Your task to perform on an android device: turn on the 24-hour format for clock Image 0: 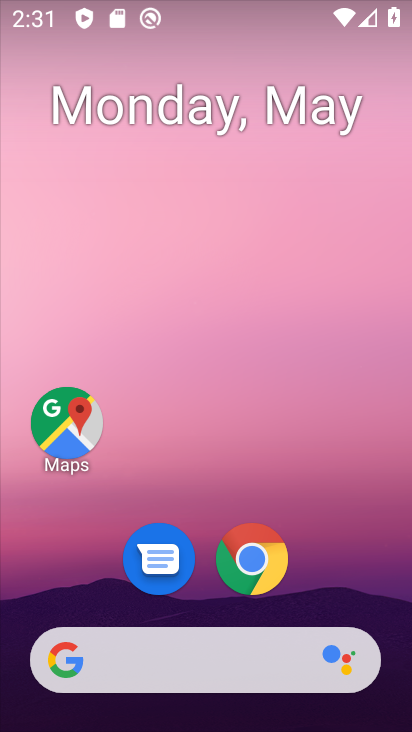
Step 0: drag from (301, 556) to (243, 10)
Your task to perform on an android device: turn on the 24-hour format for clock Image 1: 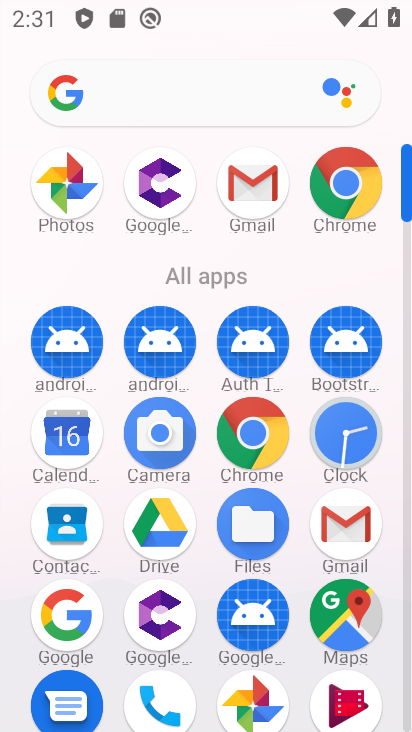
Step 1: drag from (17, 566) to (37, 225)
Your task to perform on an android device: turn on the 24-hour format for clock Image 2: 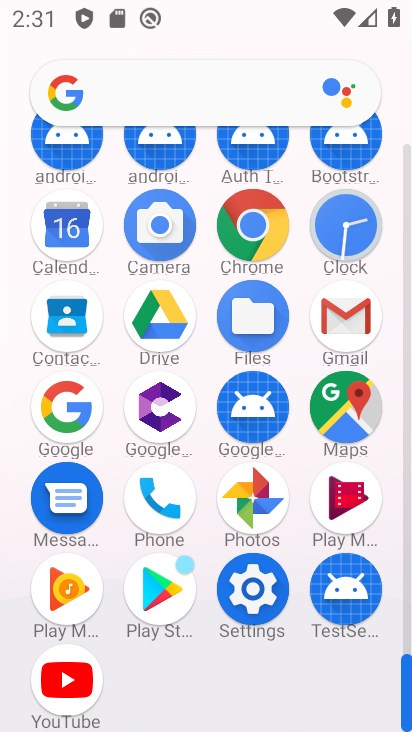
Step 2: click (341, 225)
Your task to perform on an android device: turn on the 24-hour format for clock Image 3: 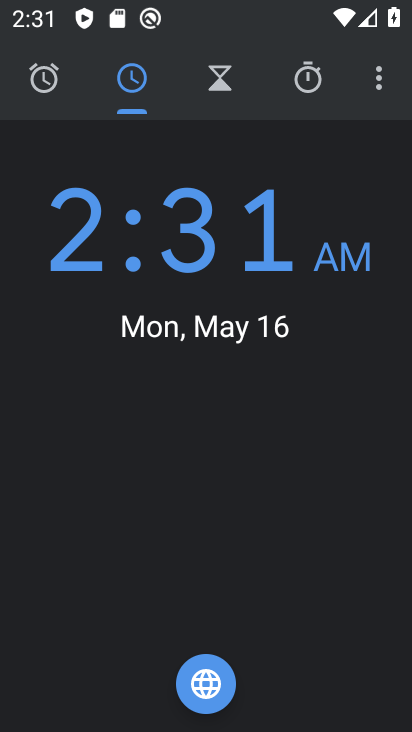
Step 3: drag from (379, 85) to (348, 153)
Your task to perform on an android device: turn on the 24-hour format for clock Image 4: 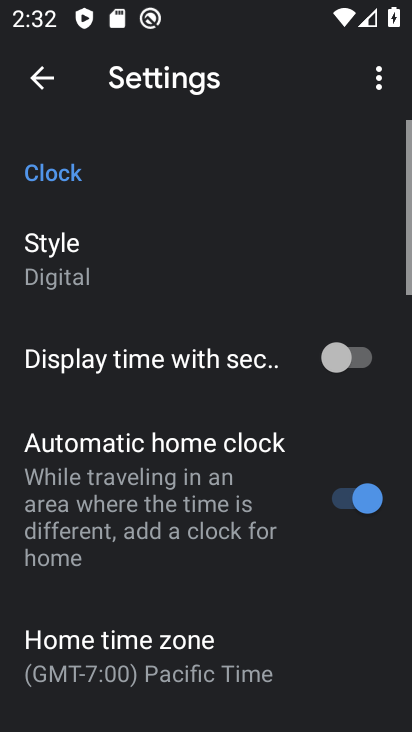
Step 4: drag from (199, 562) to (212, 191)
Your task to perform on an android device: turn on the 24-hour format for clock Image 5: 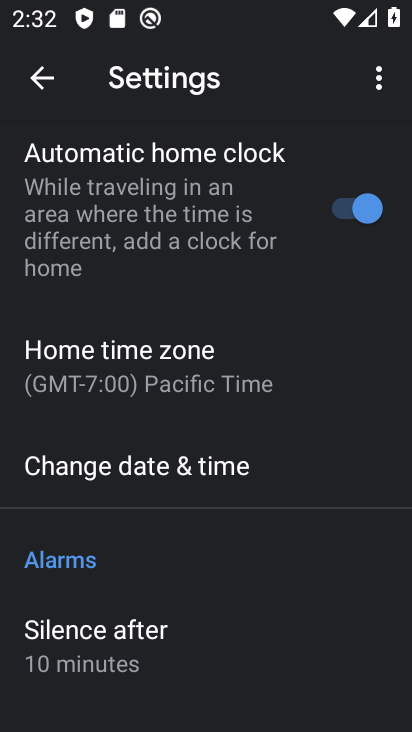
Step 5: drag from (167, 601) to (189, 334)
Your task to perform on an android device: turn on the 24-hour format for clock Image 6: 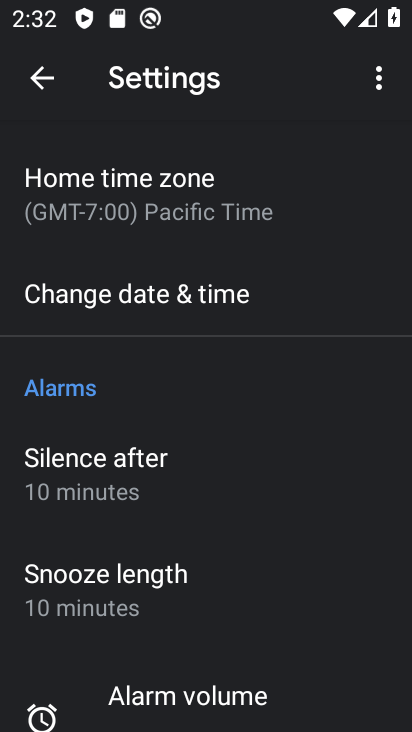
Step 6: click (172, 287)
Your task to perform on an android device: turn on the 24-hour format for clock Image 7: 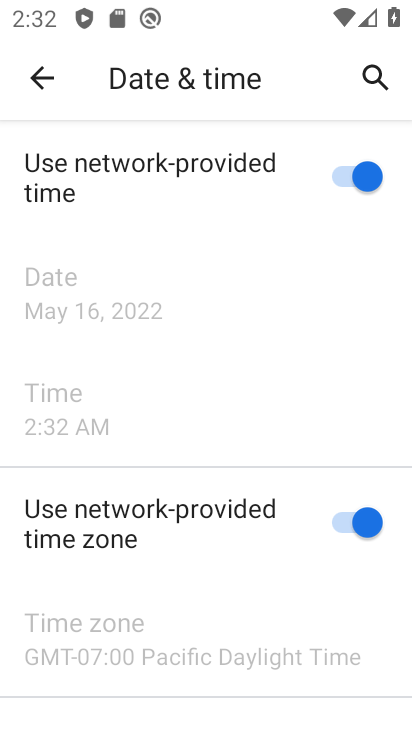
Step 7: drag from (208, 587) to (248, 175)
Your task to perform on an android device: turn on the 24-hour format for clock Image 8: 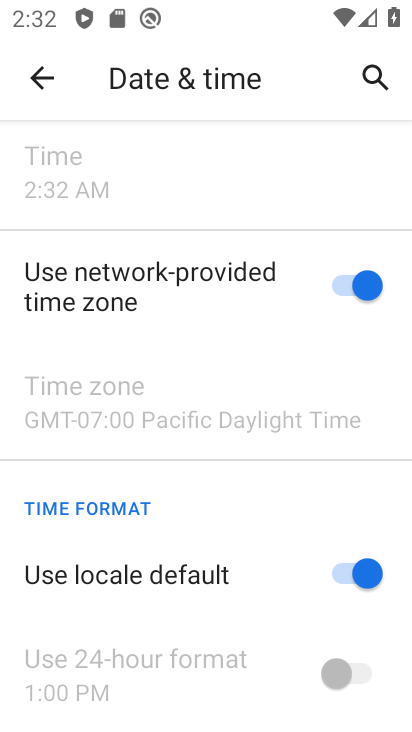
Step 8: drag from (183, 560) to (188, 211)
Your task to perform on an android device: turn on the 24-hour format for clock Image 9: 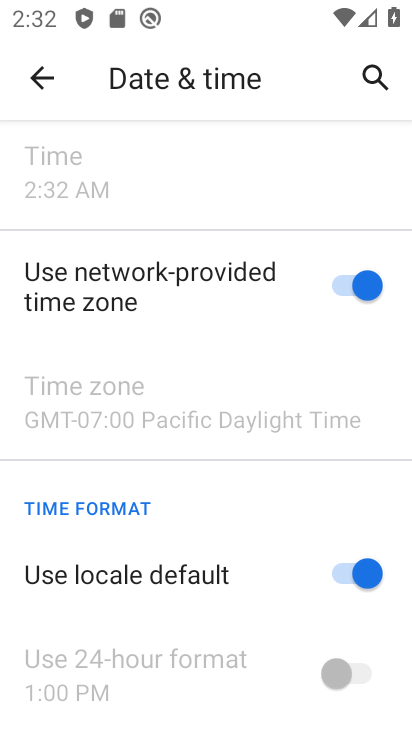
Step 9: click (352, 583)
Your task to perform on an android device: turn on the 24-hour format for clock Image 10: 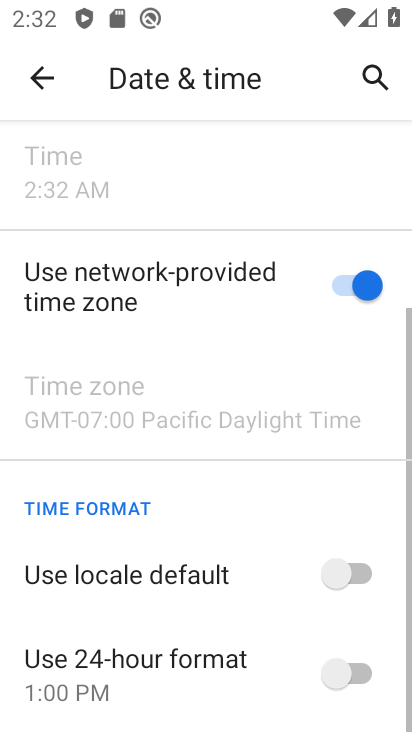
Step 10: click (342, 664)
Your task to perform on an android device: turn on the 24-hour format for clock Image 11: 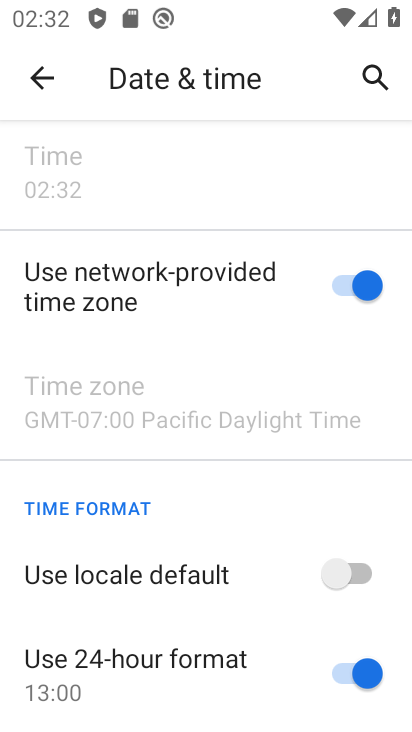
Step 11: task complete